Your task to perform on an android device: Show me popular games on the Play Store Image 0: 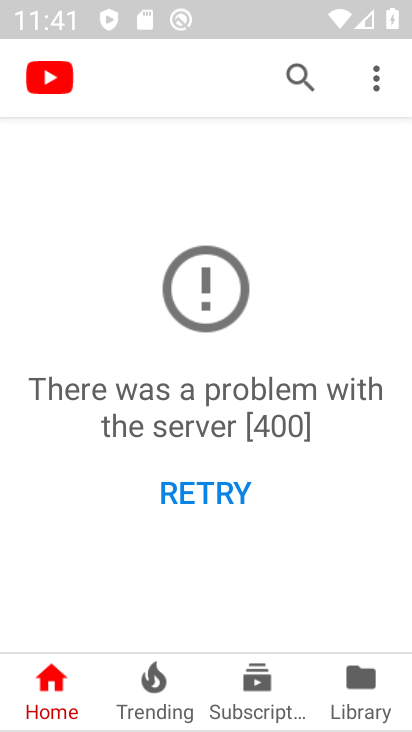
Step 0: press home button
Your task to perform on an android device: Show me popular games on the Play Store Image 1: 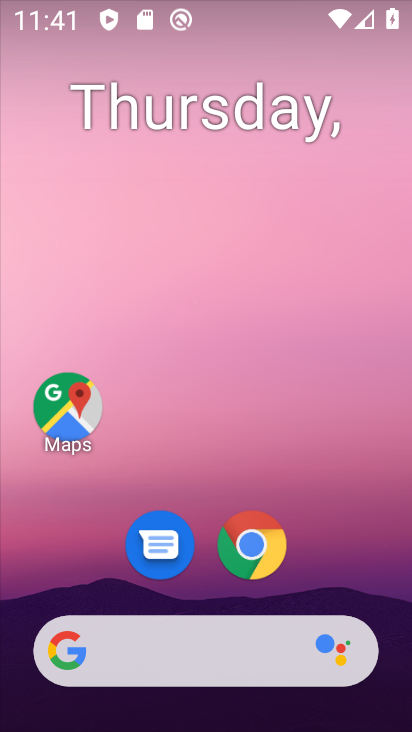
Step 1: drag from (336, 515) to (341, 227)
Your task to perform on an android device: Show me popular games on the Play Store Image 2: 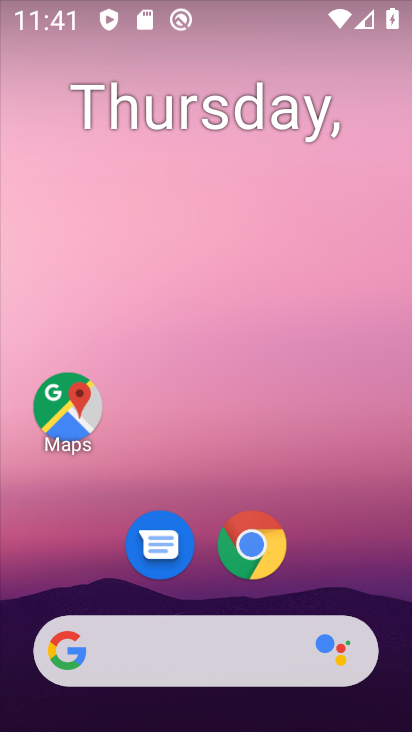
Step 2: drag from (221, 411) to (223, 173)
Your task to perform on an android device: Show me popular games on the Play Store Image 3: 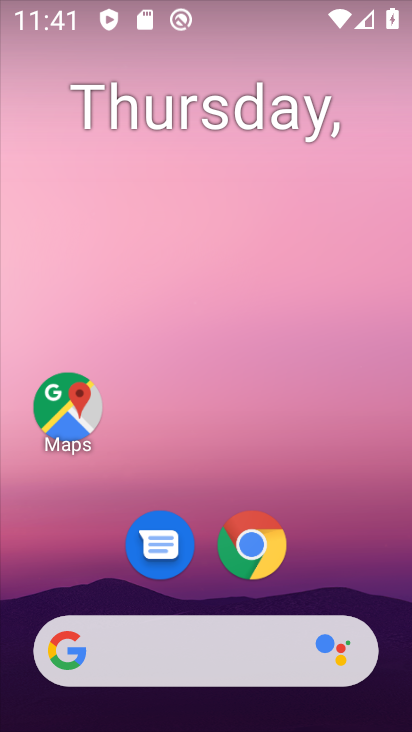
Step 3: drag from (160, 623) to (189, 208)
Your task to perform on an android device: Show me popular games on the Play Store Image 4: 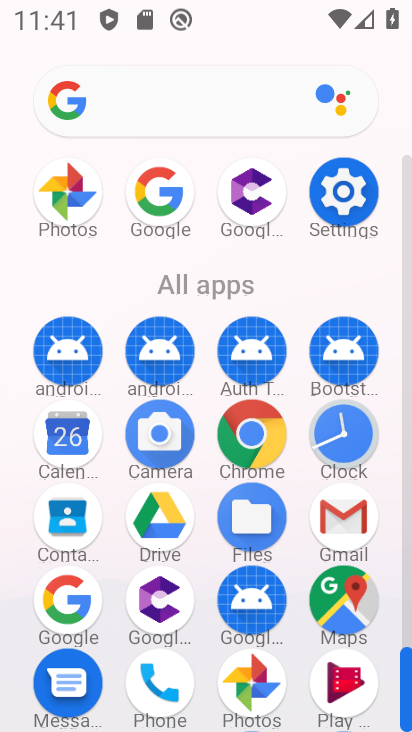
Step 4: drag from (189, 596) to (194, 223)
Your task to perform on an android device: Show me popular games on the Play Store Image 5: 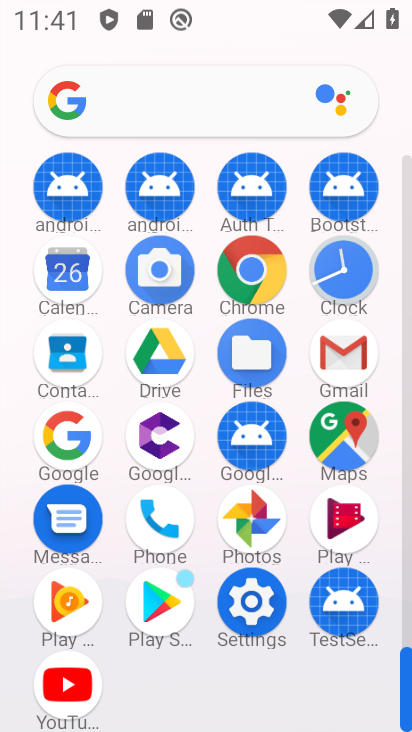
Step 5: click (150, 608)
Your task to perform on an android device: Show me popular games on the Play Store Image 6: 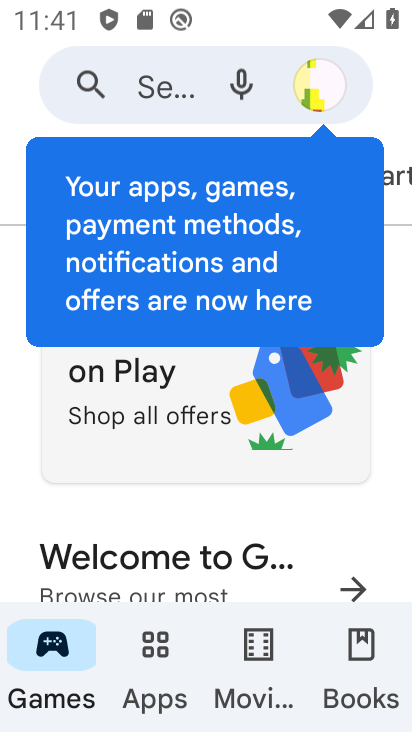
Step 6: click (161, 671)
Your task to perform on an android device: Show me popular games on the Play Store Image 7: 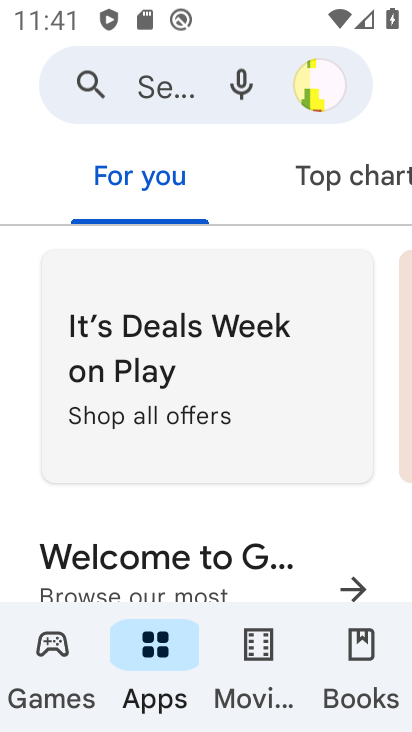
Step 7: click (64, 660)
Your task to perform on an android device: Show me popular games on the Play Store Image 8: 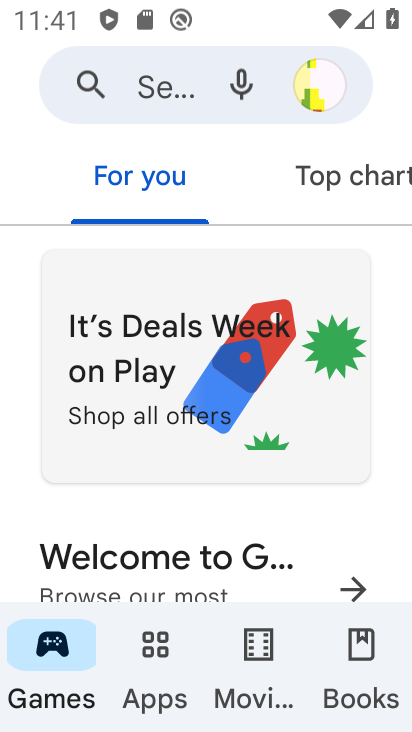
Step 8: task complete